Your task to perform on an android device: change notification settings in the gmail app Image 0: 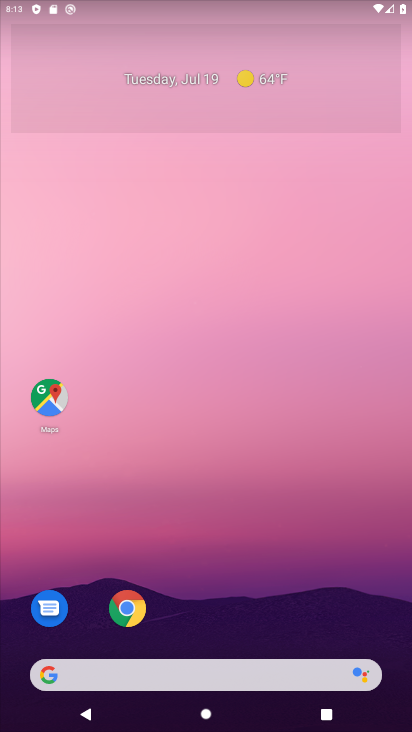
Step 0: drag from (189, 673) to (94, 78)
Your task to perform on an android device: change notification settings in the gmail app Image 1: 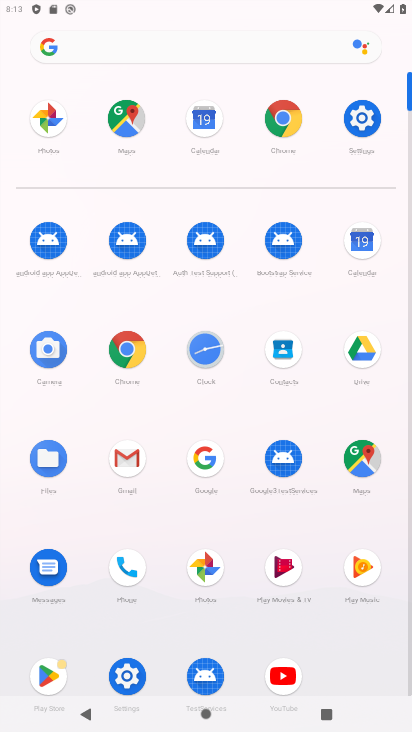
Step 1: click (124, 457)
Your task to perform on an android device: change notification settings in the gmail app Image 2: 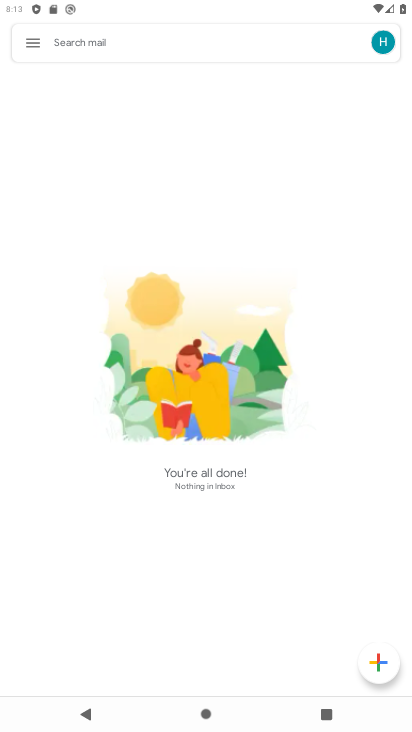
Step 2: click (34, 46)
Your task to perform on an android device: change notification settings in the gmail app Image 3: 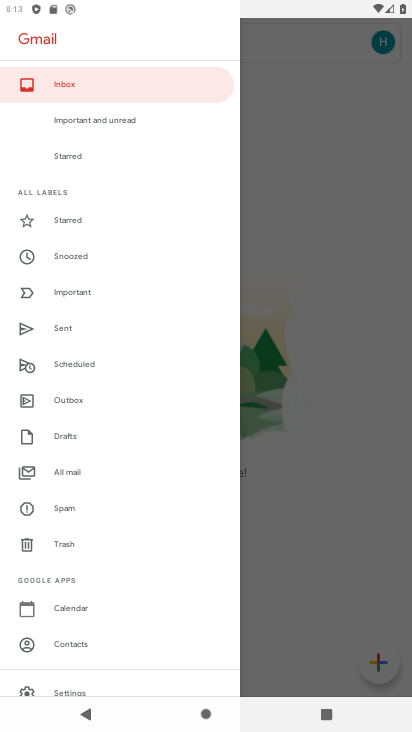
Step 3: drag from (65, 678) to (80, 365)
Your task to perform on an android device: change notification settings in the gmail app Image 4: 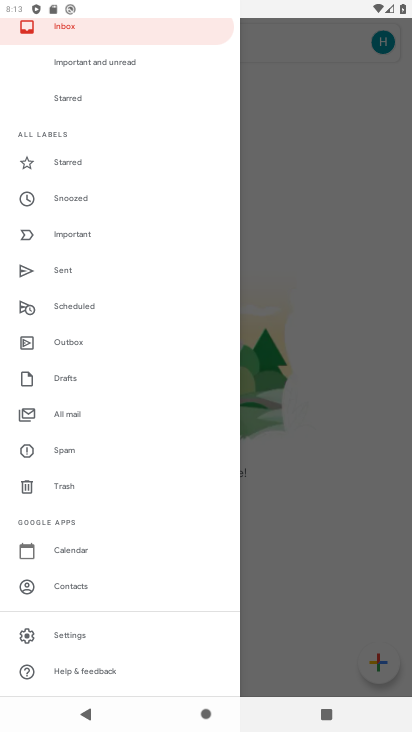
Step 4: click (67, 629)
Your task to perform on an android device: change notification settings in the gmail app Image 5: 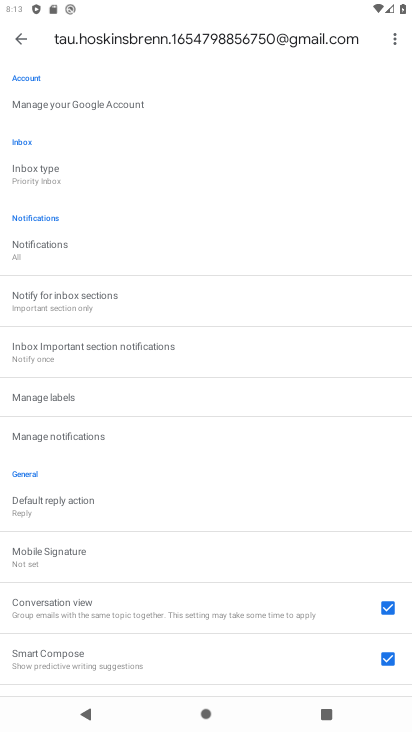
Step 5: click (76, 446)
Your task to perform on an android device: change notification settings in the gmail app Image 6: 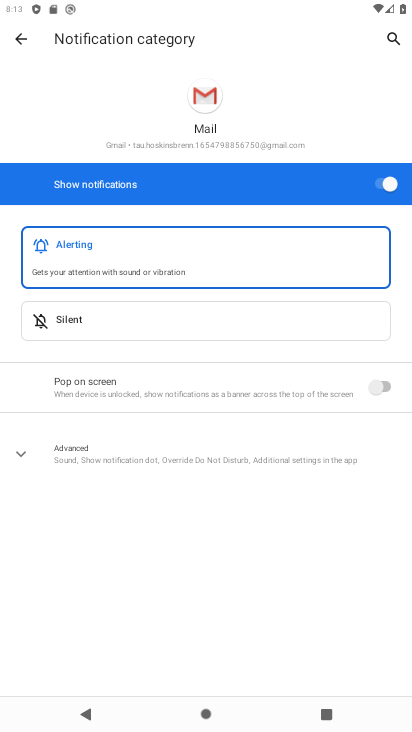
Step 6: click (144, 328)
Your task to perform on an android device: change notification settings in the gmail app Image 7: 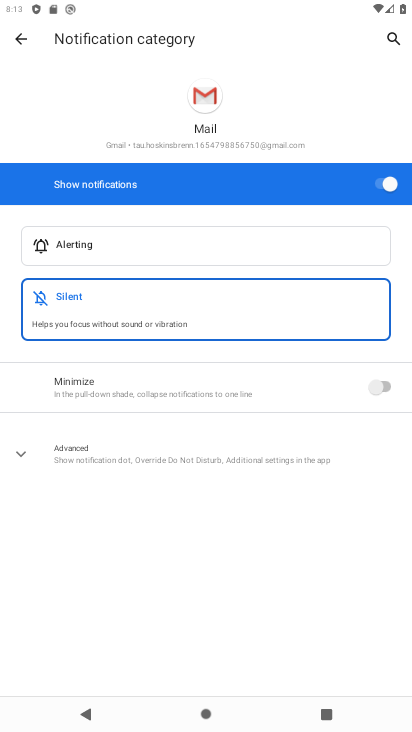
Step 7: task complete